Your task to perform on an android device: Open Youtube and go to "Your channel" Image 0: 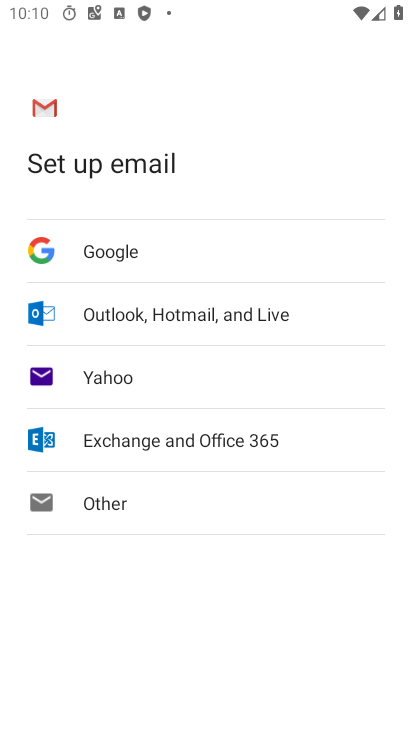
Step 0: press home button
Your task to perform on an android device: Open Youtube and go to "Your channel" Image 1: 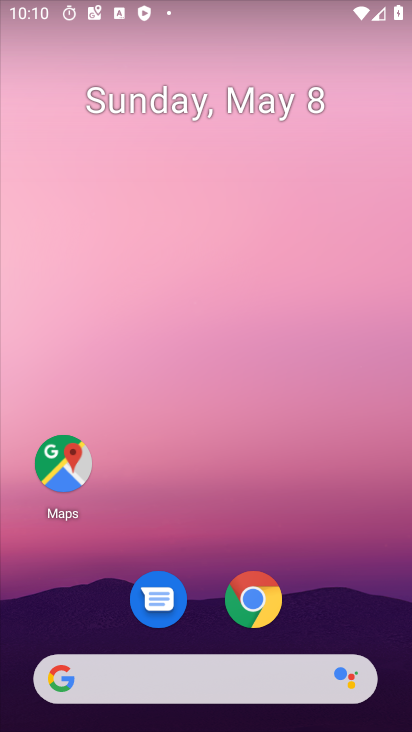
Step 1: drag from (371, 578) to (348, 278)
Your task to perform on an android device: Open Youtube and go to "Your channel" Image 2: 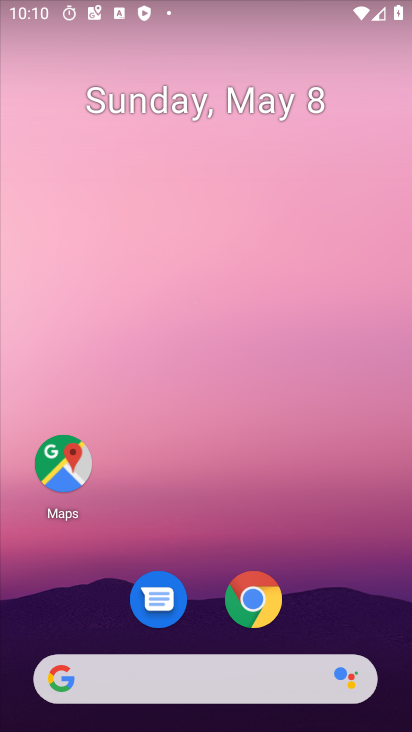
Step 2: drag from (170, 628) to (269, 240)
Your task to perform on an android device: Open Youtube and go to "Your channel" Image 3: 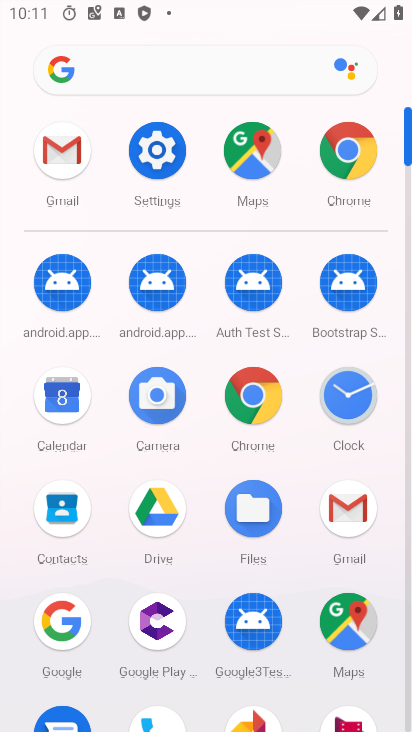
Step 3: drag from (232, 468) to (232, 215)
Your task to perform on an android device: Open Youtube and go to "Your channel" Image 4: 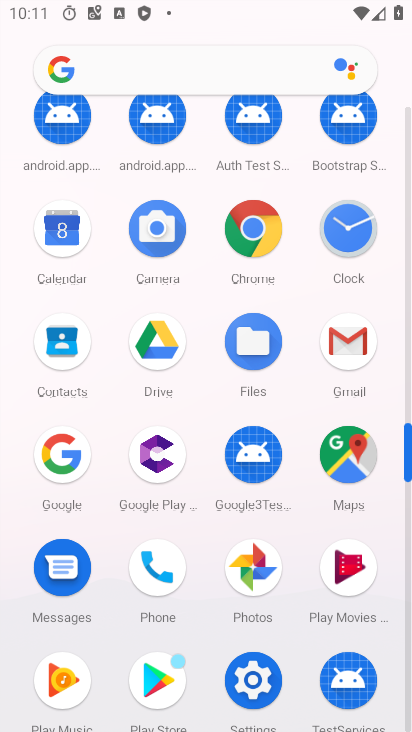
Step 4: drag from (229, 491) to (237, 155)
Your task to perform on an android device: Open Youtube and go to "Your channel" Image 5: 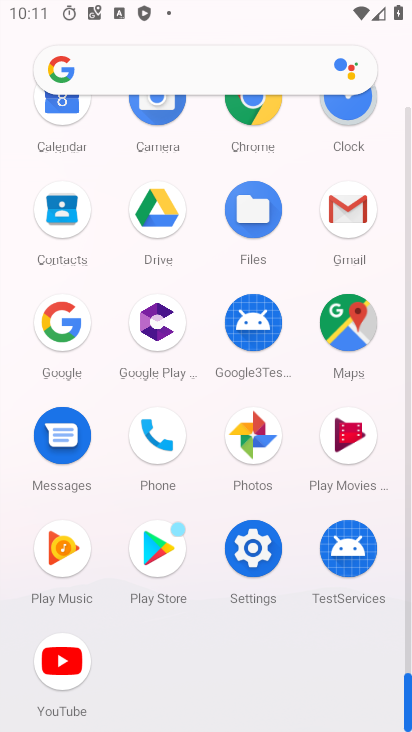
Step 5: click (64, 676)
Your task to perform on an android device: Open Youtube and go to "Your channel" Image 6: 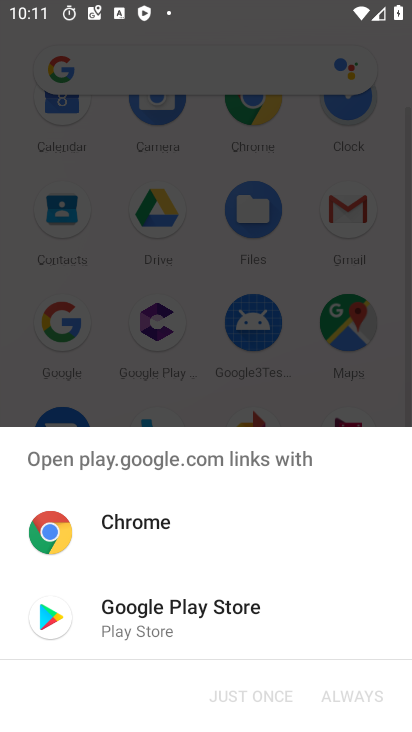
Step 6: click (365, 232)
Your task to perform on an android device: Open Youtube and go to "Your channel" Image 7: 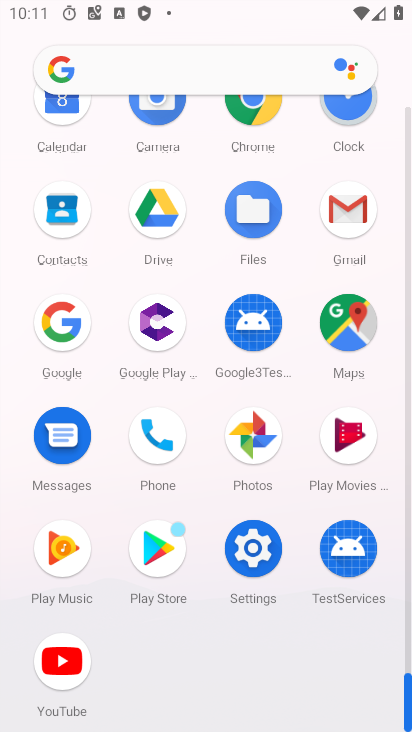
Step 7: task complete